Your task to perform on an android device: turn off location Image 0: 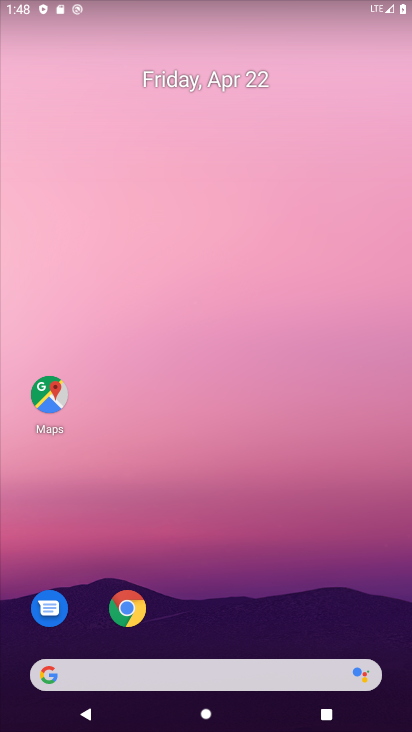
Step 0: drag from (265, 625) to (307, 157)
Your task to perform on an android device: turn off location Image 1: 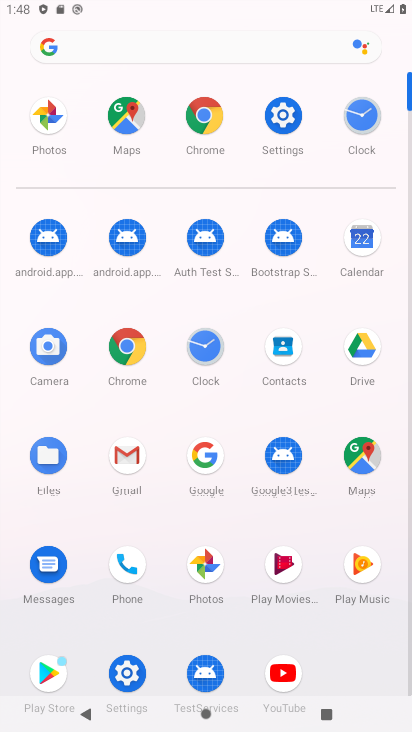
Step 1: drag from (282, 73) to (237, 44)
Your task to perform on an android device: turn off location Image 2: 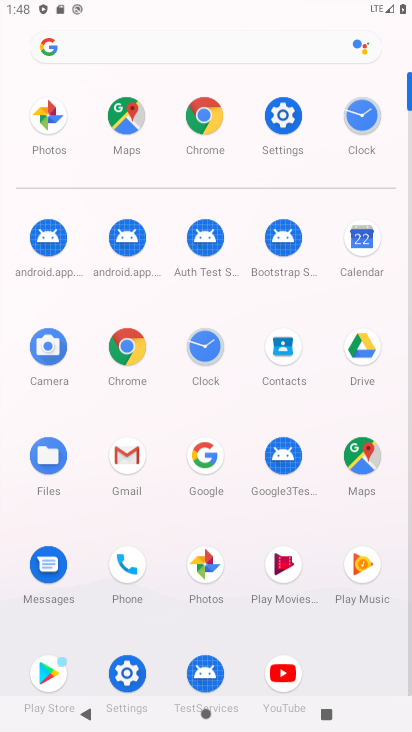
Step 2: click (237, 44)
Your task to perform on an android device: turn off location Image 3: 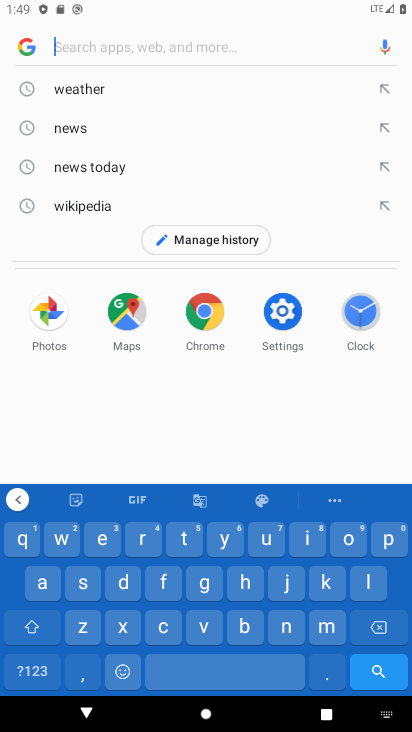
Step 3: press back button
Your task to perform on an android device: turn off location Image 4: 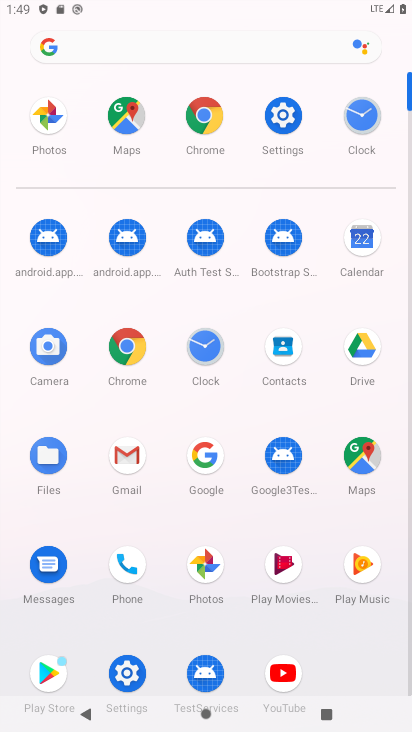
Step 4: click (281, 127)
Your task to perform on an android device: turn off location Image 5: 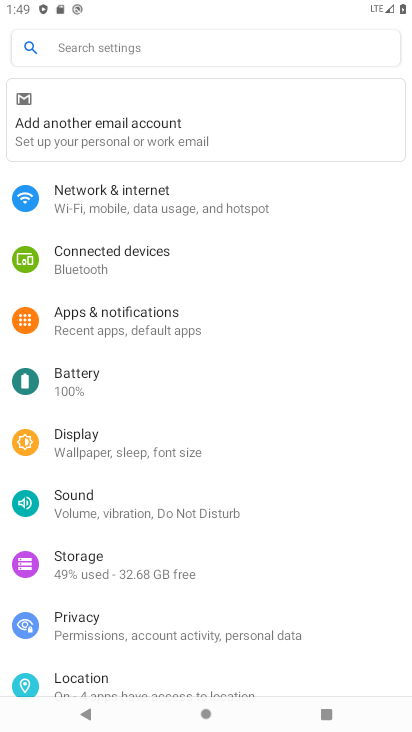
Step 5: click (100, 670)
Your task to perform on an android device: turn off location Image 6: 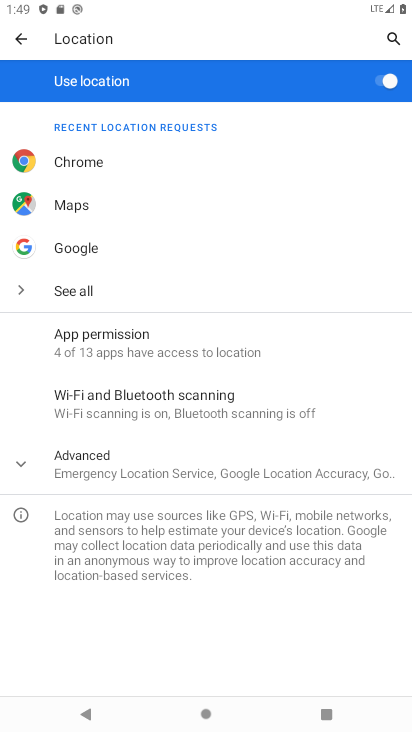
Step 6: click (376, 73)
Your task to perform on an android device: turn off location Image 7: 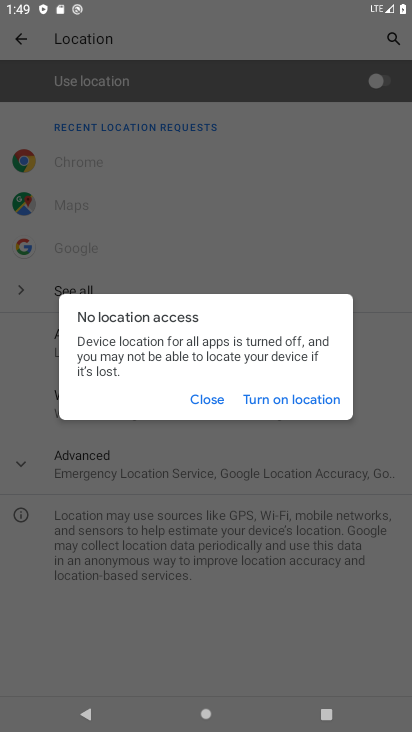
Step 7: task complete